Your task to perform on an android device: turn off priority inbox in the gmail app Image 0: 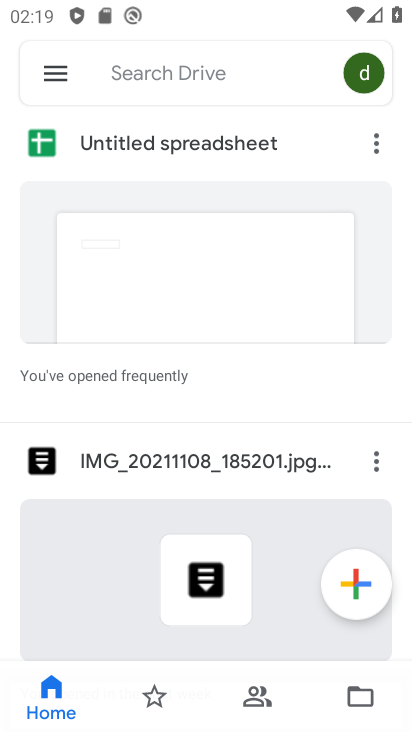
Step 0: press home button
Your task to perform on an android device: turn off priority inbox in the gmail app Image 1: 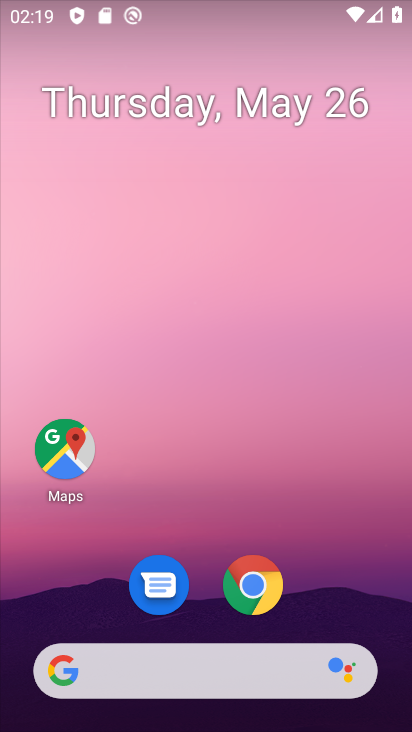
Step 1: drag from (243, 471) to (276, 0)
Your task to perform on an android device: turn off priority inbox in the gmail app Image 2: 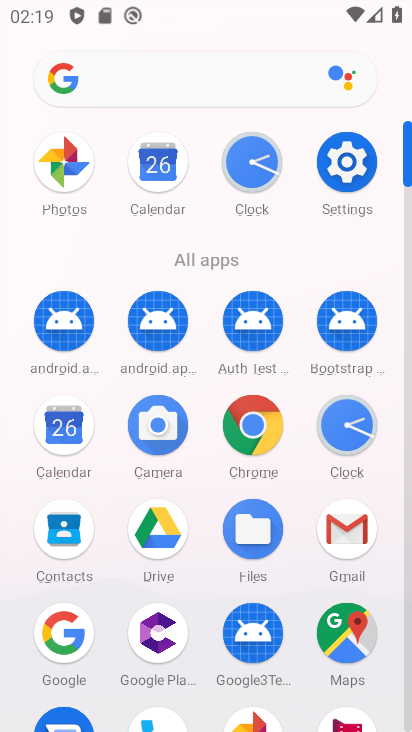
Step 2: click (337, 533)
Your task to perform on an android device: turn off priority inbox in the gmail app Image 3: 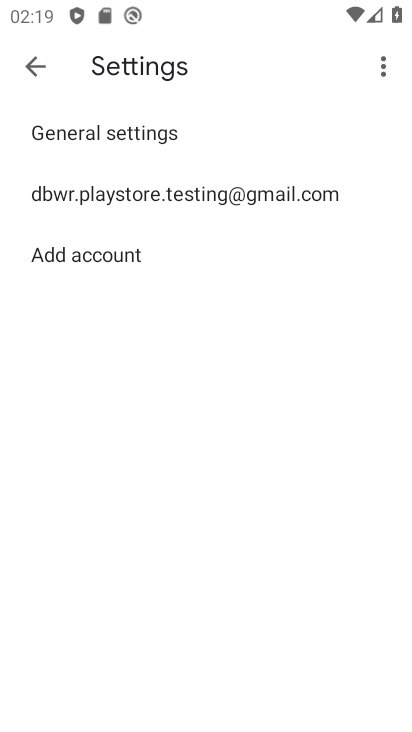
Step 3: click (214, 183)
Your task to perform on an android device: turn off priority inbox in the gmail app Image 4: 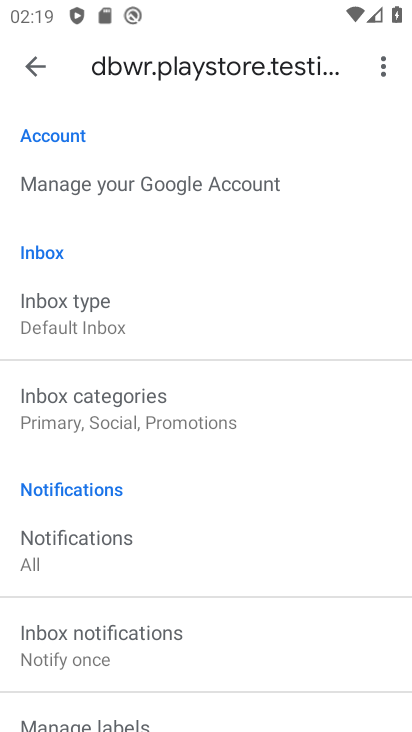
Step 4: click (98, 302)
Your task to perform on an android device: turn off priority inbox in the gmail app Image 5: 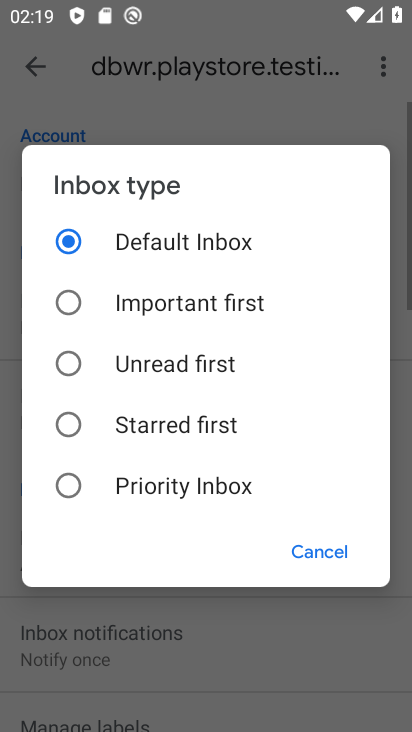
Step 5: click (98, 302)
Your task to perform on an android device: turn off priority inbox in the gmail app Image 6: 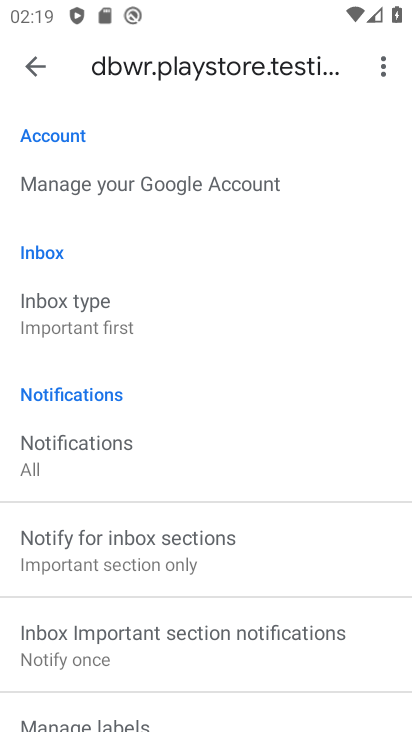
Step 6: task complete